Your task to perform on an android device: change your default location settings in chrome Image 0: 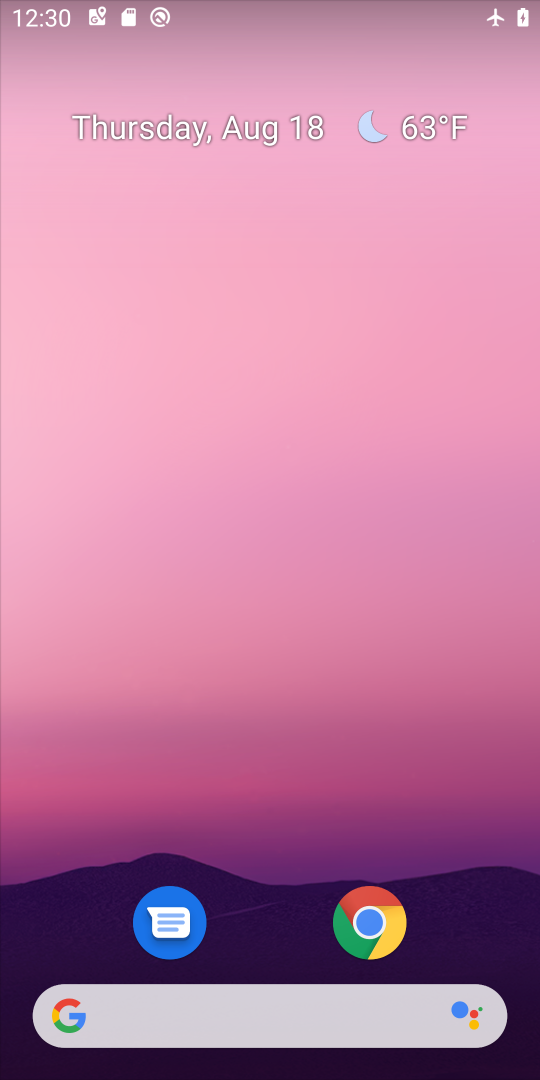
Step 0: click (372, 924)
Your task to perform on an android device: change your default location settings in chrome Image 1: 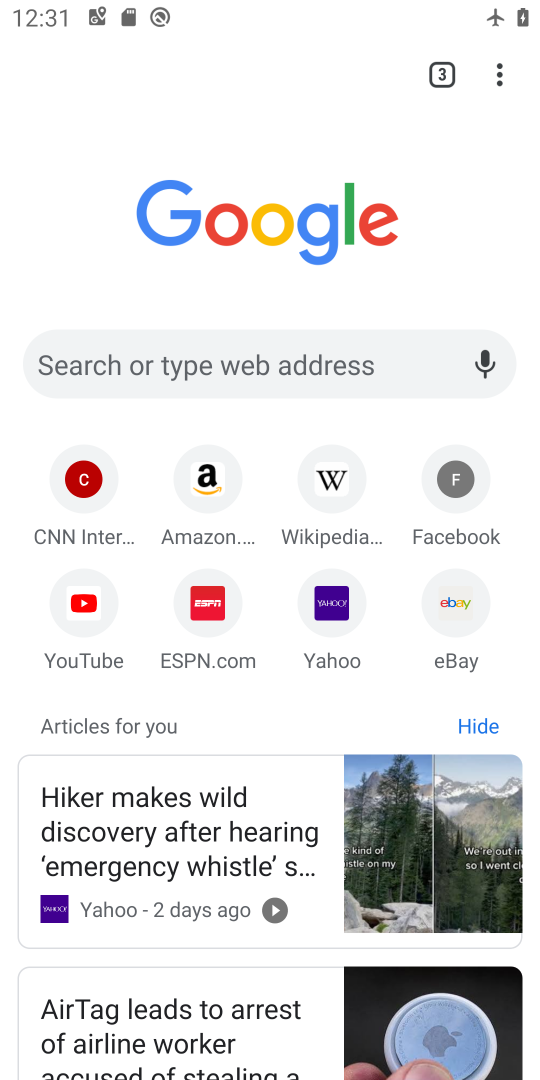
Step 1: click (496, 79)
Your task to perform on an android device: change your default location settings in chrome Image 2: 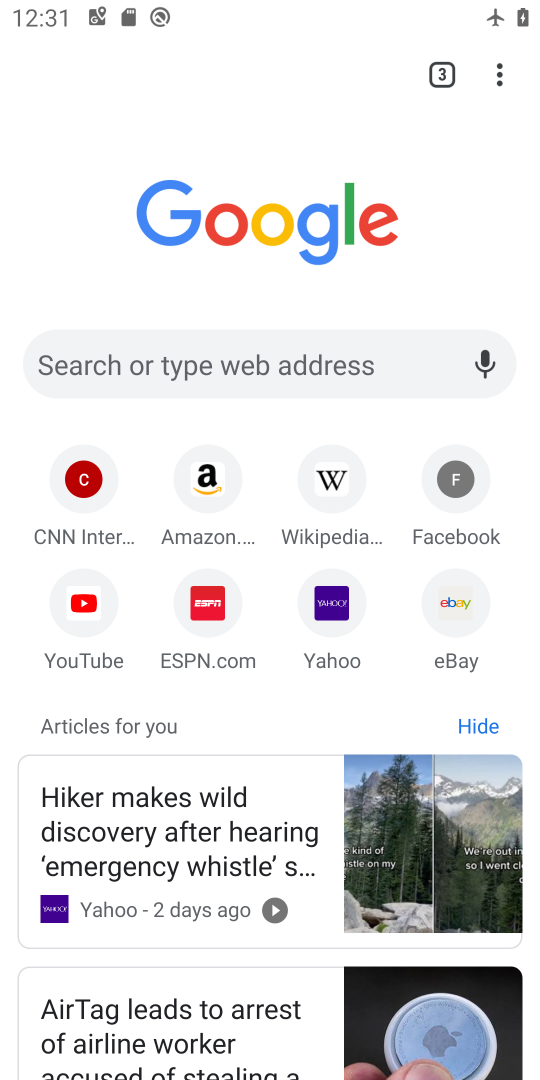
Step 2: click (483, 81)
Your task to perform on an android device: change your default location settings in chrome Image 3: 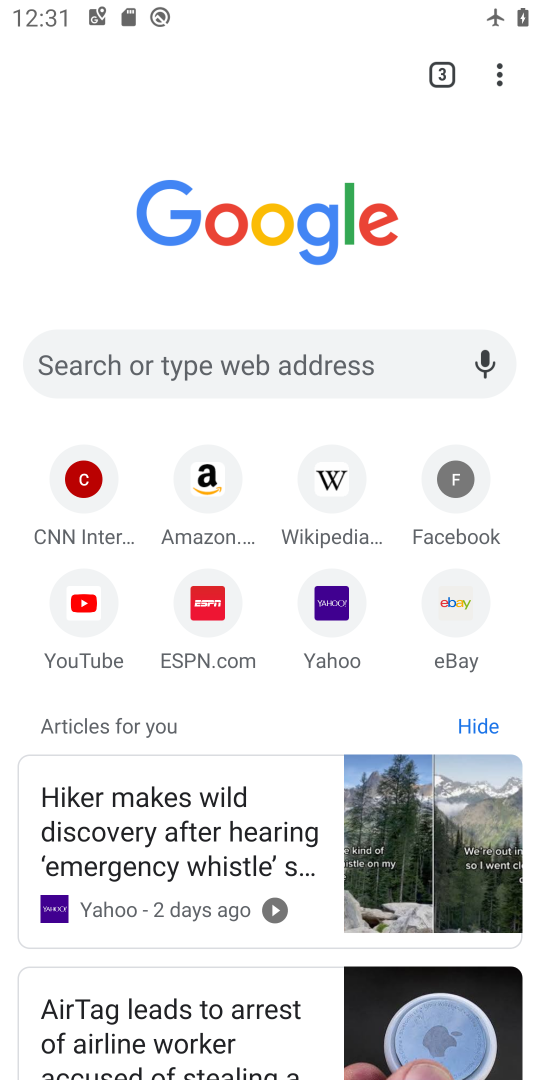
Step 3: click (485, 71)
Your task to perform on an android device: change your default location settings in chrome Image 4: 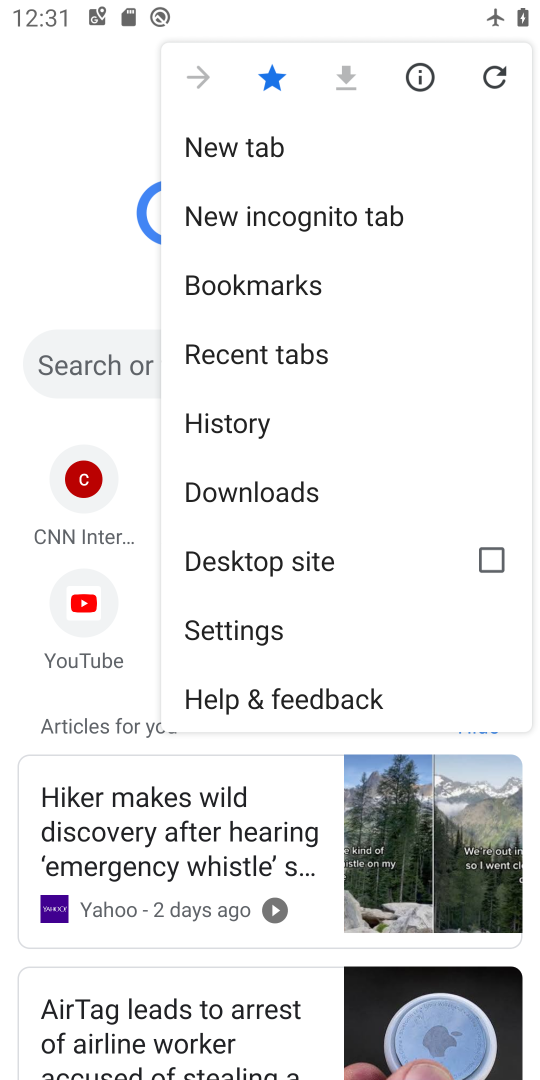
Step 4: click (249, 632)
Your task to perform on an android device: change your default location settings in chrome Image 5: 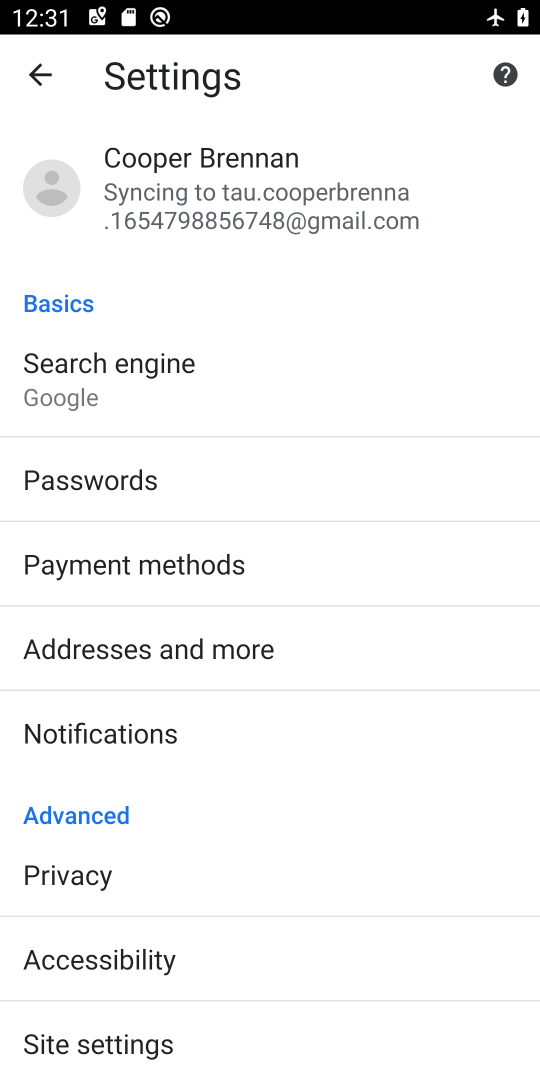
Step 5: click (86, 1039)
Your task to perform on an android device: change your default location settings in chrome Image 6: 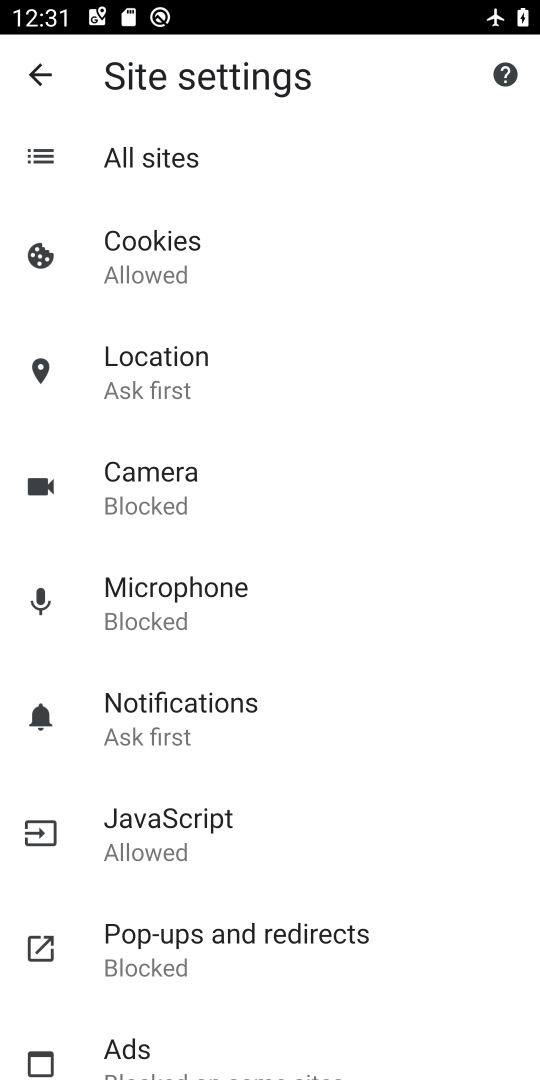
Step 6: click (151, 363)
Your task to perform on an android device: change your default location settings in chrome Image 7: 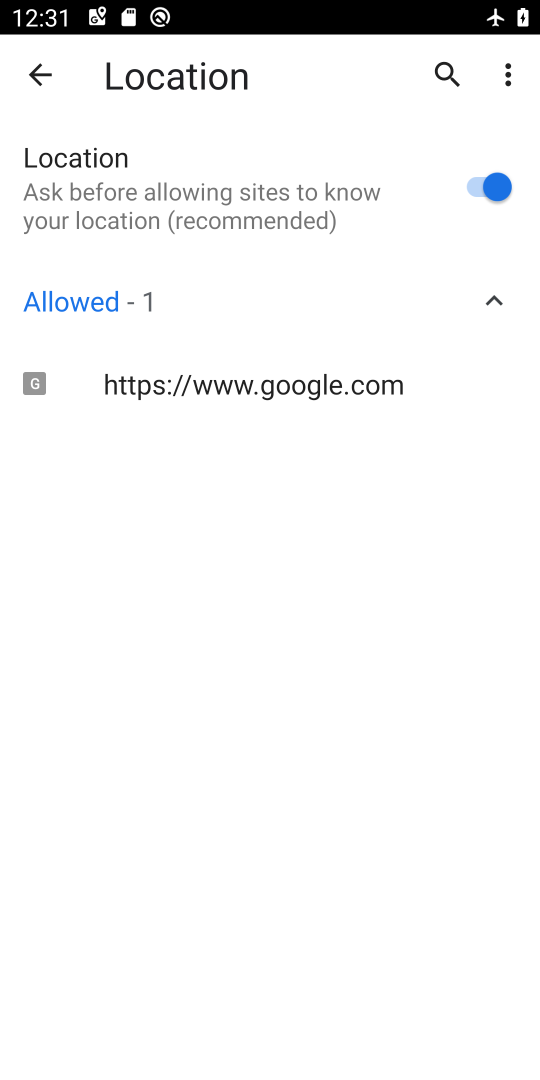
Step 7: click (496, 178)
Your task to perform on an android device: change your default location settings in chrome Image 8: 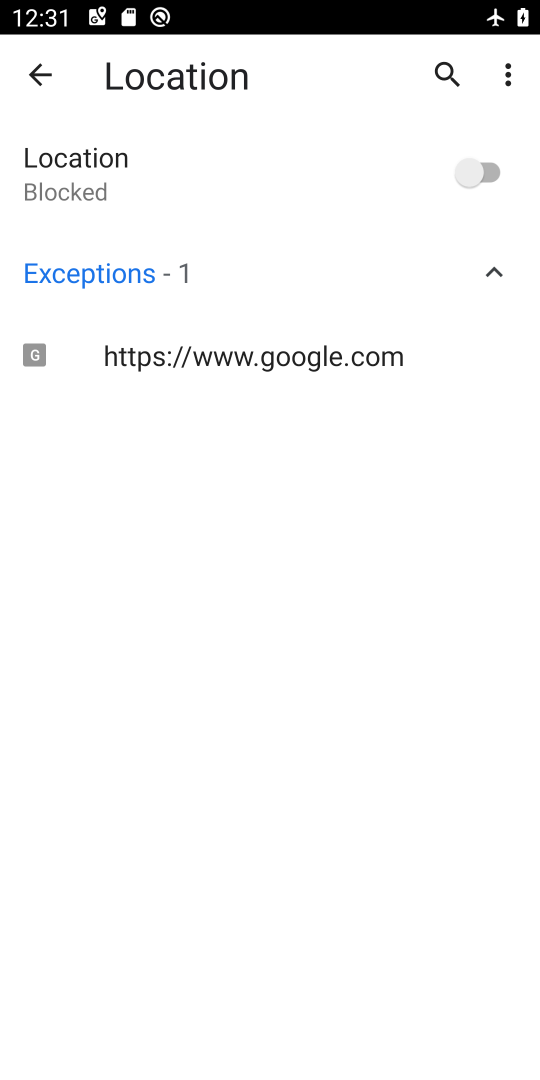
Step 8: task complete